Your task to perform on an android device: Set the phone to "Do not disturb". Image 0: 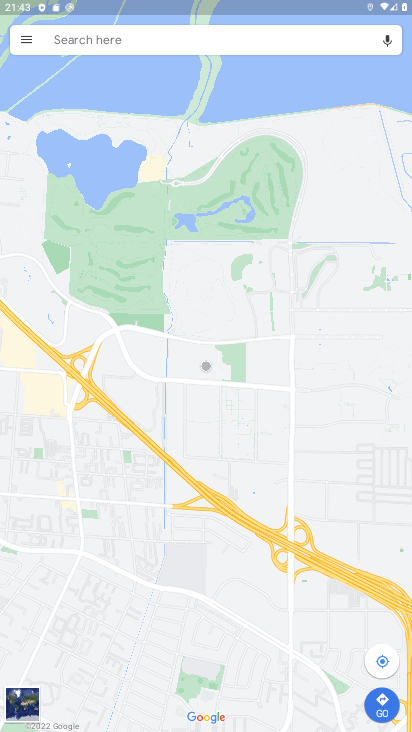
Step 0: press home button
Your task to perform on an android device: Set the phone to "Do not disturb". Image 1: 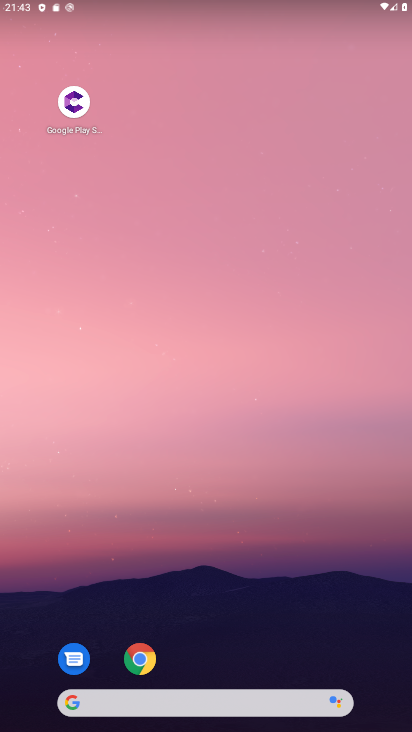
Step 1: drag from (211, 624) to (207, 72)
Your task to perform on an android device: Set the phone to "Do not disturb". Image 2: 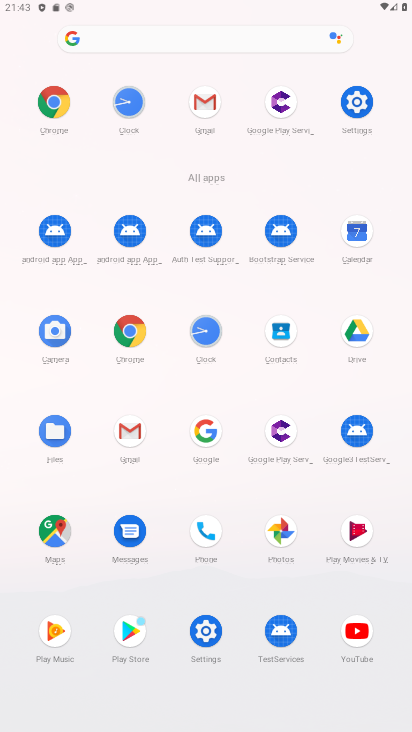
Step 2: click (356, 101)
Your task to perform on an android device: Set the phone to "Do not disturb". Image 3: 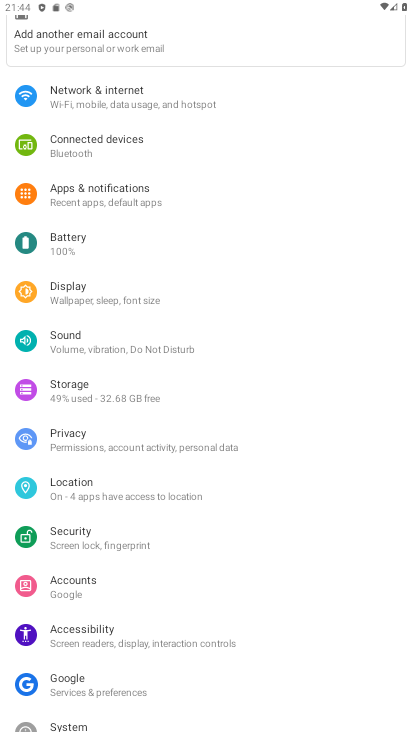
Step 3: click (75, 336)
Your task to perform on an android device: Set the phone to "Do not disturb". Image 4: 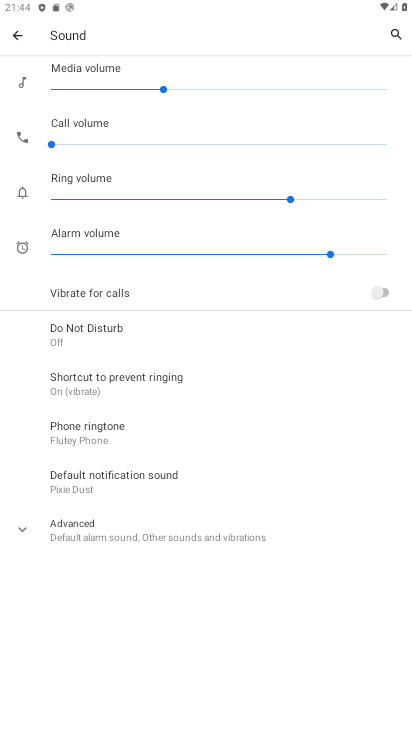
Step 4: click (102, 339)
Your task to perform on an android device: Set the phone to "Do not disturb". Image 5: 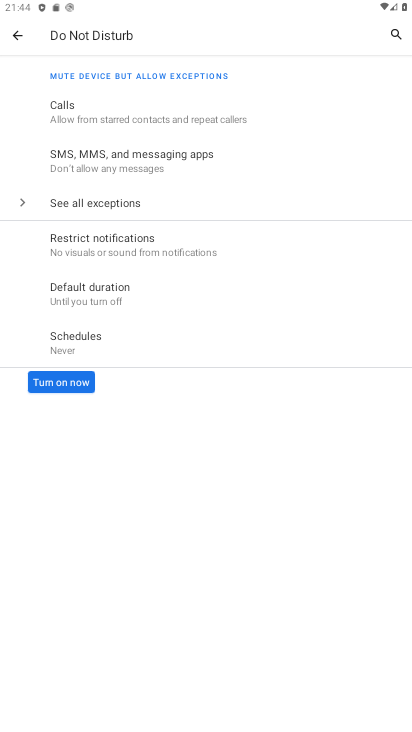
Step 5: click (68, 385)
Your task to perform on an android device: Set the phone to "Do not disturb". Image 6: 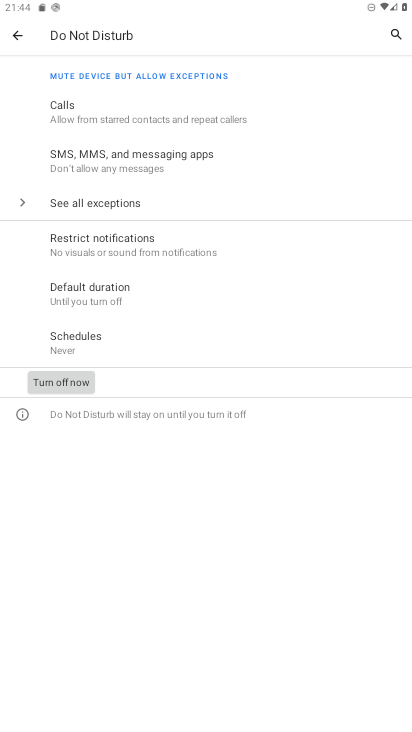
Step 6: task complete